Your task to perform on an android device: Go to Google maps Image 0: 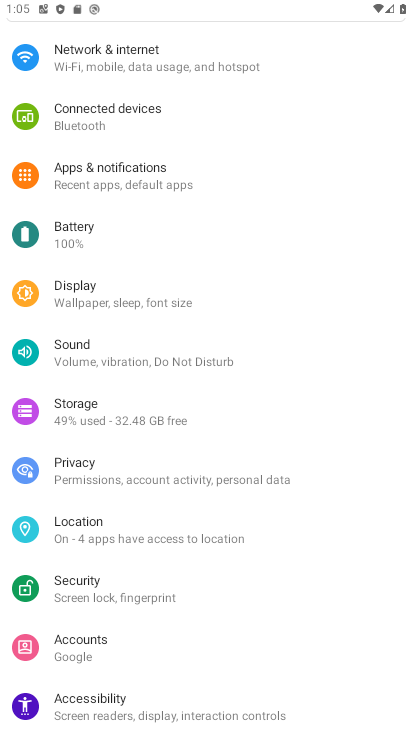
Step 0: press home button
Your task to perform on an android device: Go to Google maps Image 1: 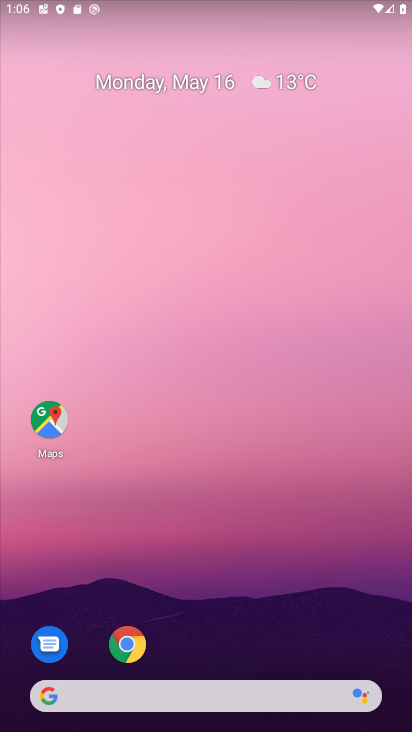
Step 1: drag from (193, 584) to (281, 110)
Your task to perform on an android device: Go to Google maps Image 2: 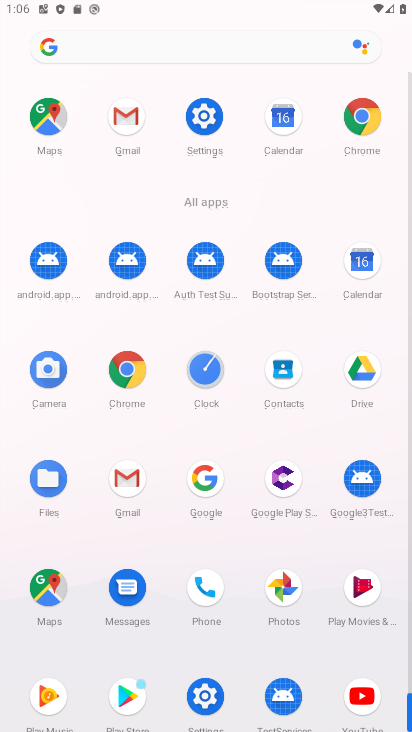
Step 2: click (48, 594)
Your task to perform on an android device: Go to Google maps Image 3: 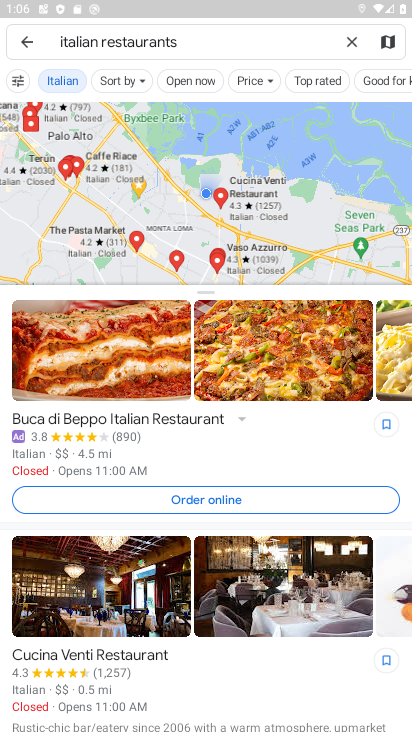
Step 3: task complete